Your task to perform on an android device: empty trash in google photos Image 0: 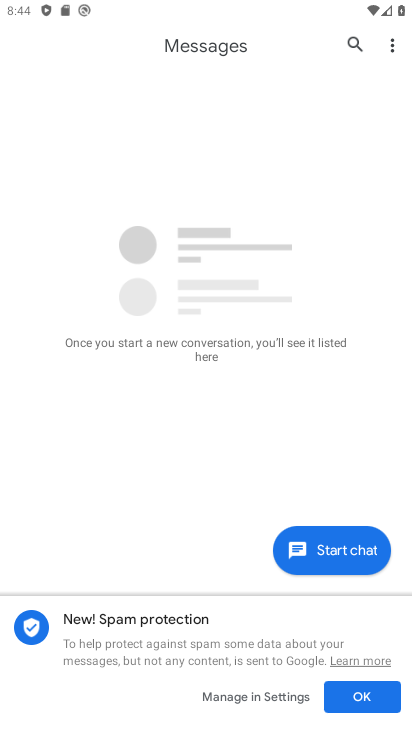
Step 0: press home button
Your task to perform on an android device: empty trash in google photos Image 1: 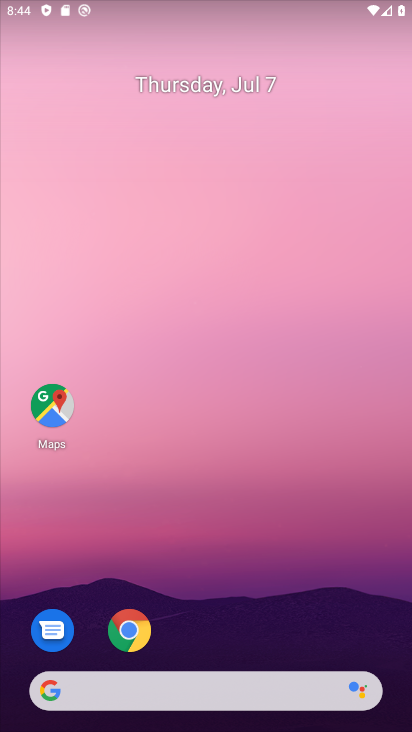
Step 1: drag from (205, 610) to (199, 159)
Your task to perform on an android device: empty trash in google photos Image 2: 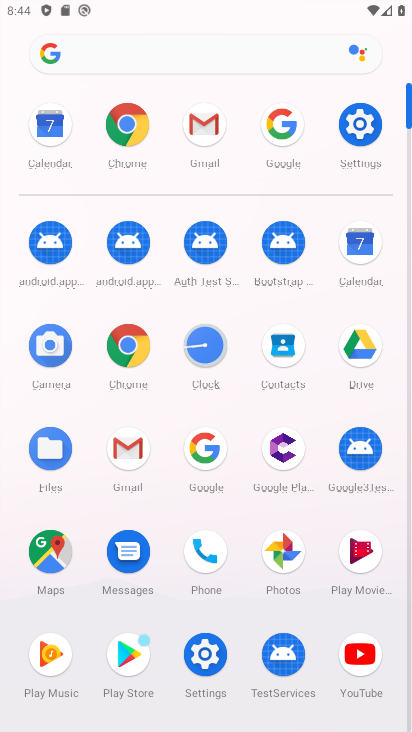
Step 2: click (283, 551)
Your task to perform on an android device: empty trash in google photos Image 3: 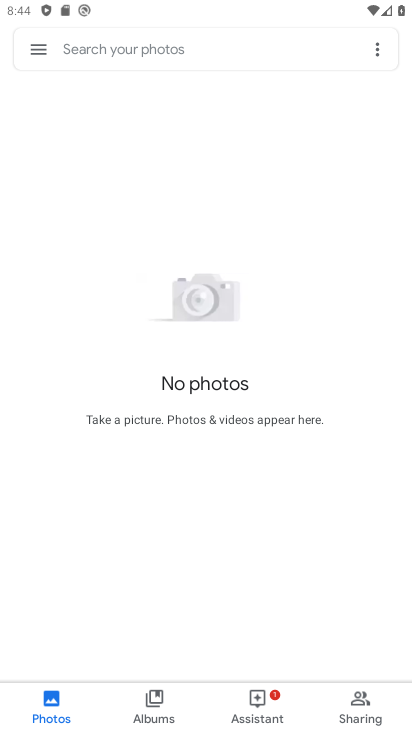
Step 3: click (42, 52)
Your task to perform on an android device: empty trash in google photos Image 4: 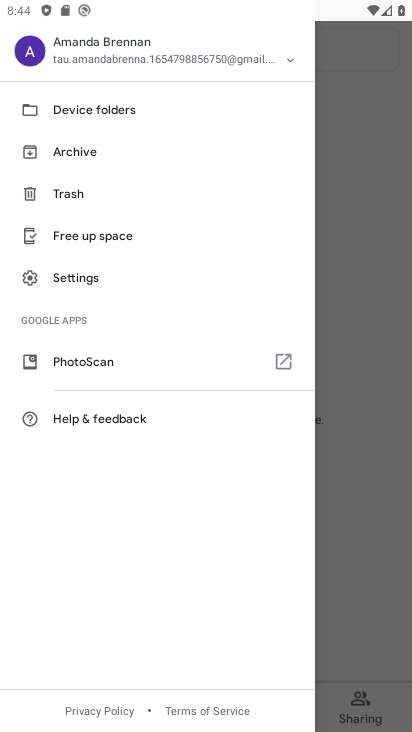
Step 4: click (80, 194)
Your task to perform on an android device: empty trash in google photos Image 5: 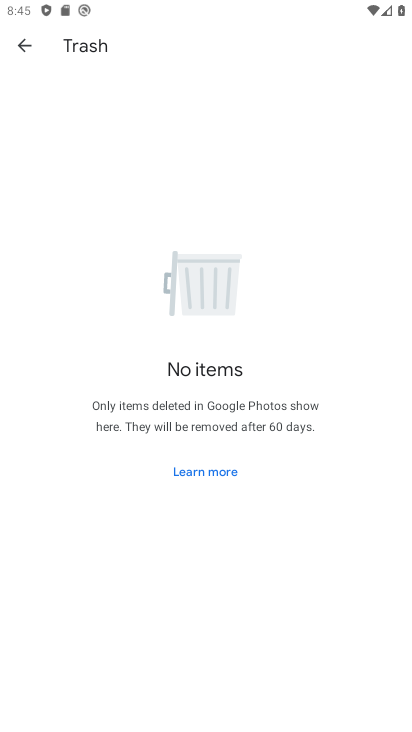
Step 5: task complete